Your task to perform on an android device: see creations saved in the google photos Image 0: 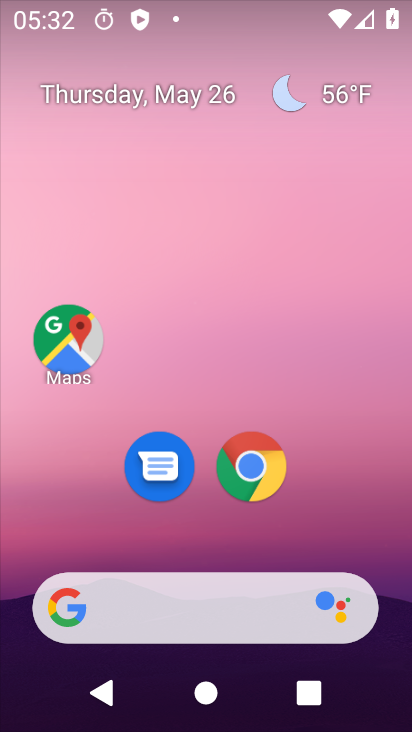
Step 0: drag from (329, 512) to (360, 133)
Your task to perform on an android device: see creations saved in the google photos Image 1: 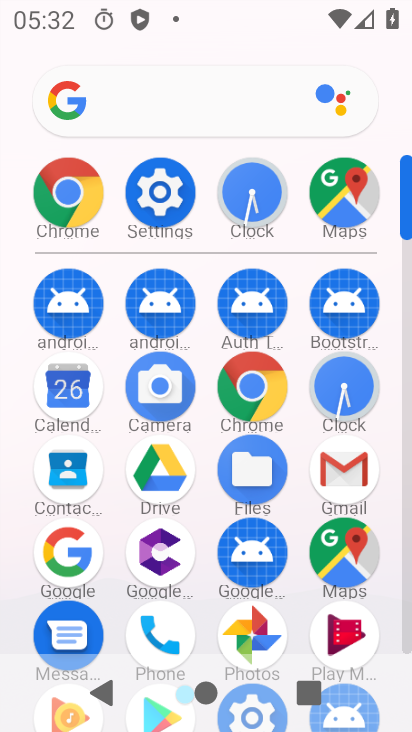
Step 1: click (260, 627)
Your task to perform on an android device: see creations saved in the google photos Image 2: 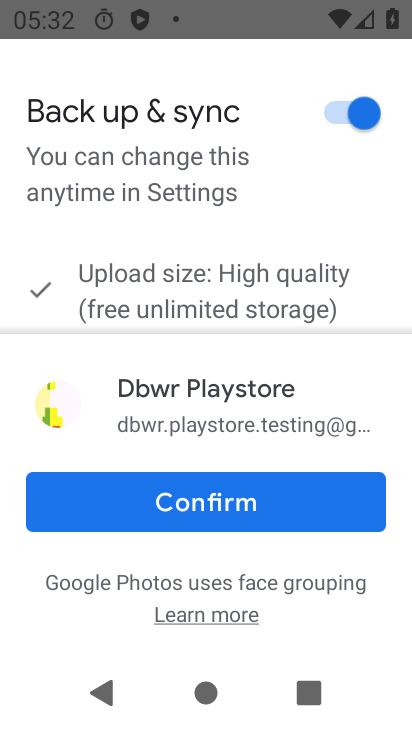
Step 2: click (256, 504)
Your task to perform on an android device: see creations saved in the google photos Image 3: 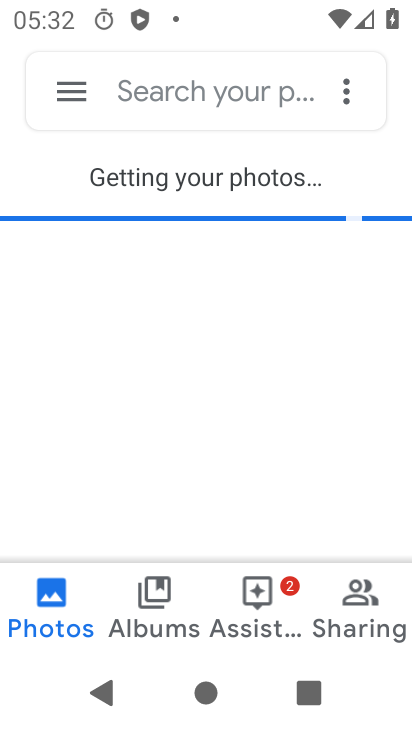
Step 3: click (185, 101)
Your task to perform on an android device: see creations saved in the google photos Image 4: 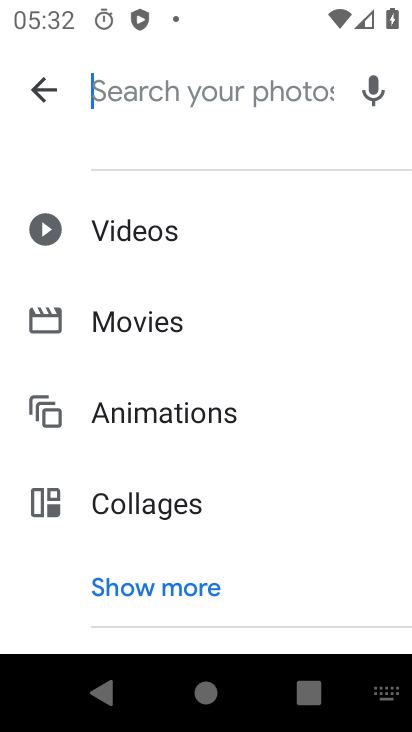
Step 4: click (186, 589)
Your task to perform on an android device: see creations saved in the google photos Image 5: 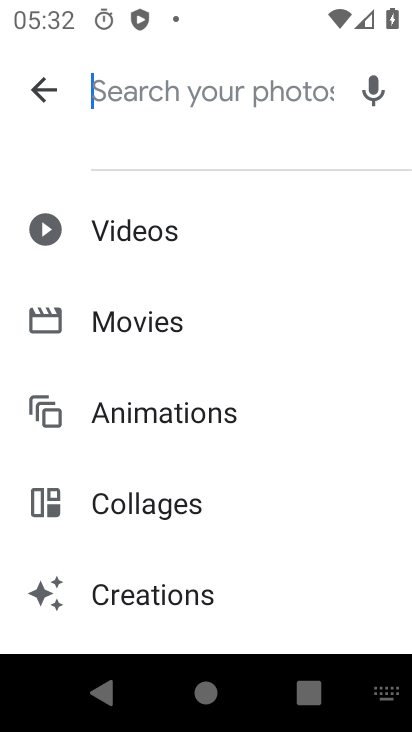
Step 5: drag from (331, 594) to (336, 252)
Your task to perform on an android device: see creations saved in the google photos Image 6: 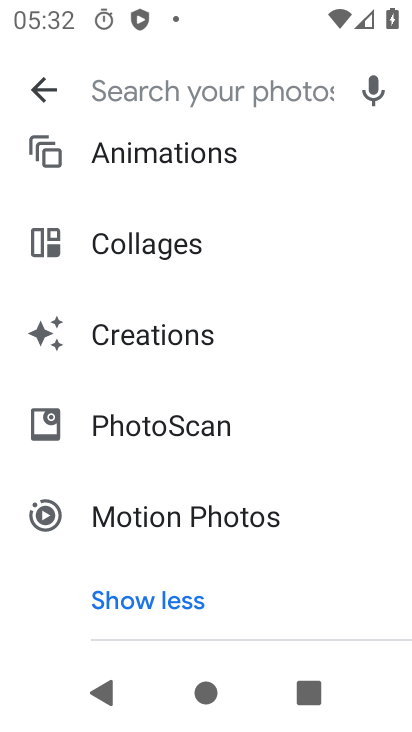
Step 6: click (155, 325)
Your task to perform on an android device: see creations saved in the google photos Image 7: 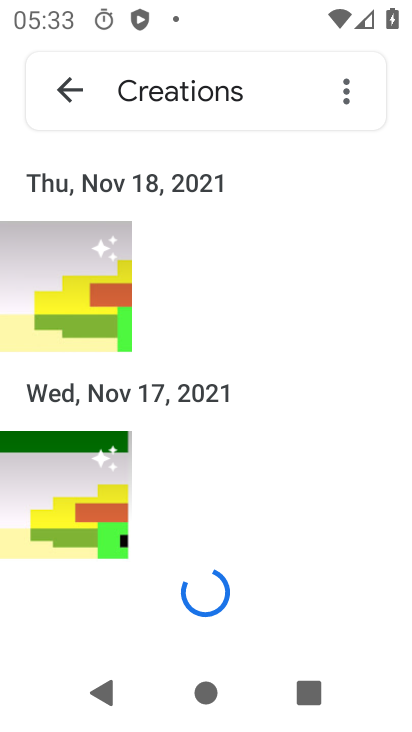
Step 7: task complete